Your task to perform on an android device: turn off translation in the chrome app Image 0: 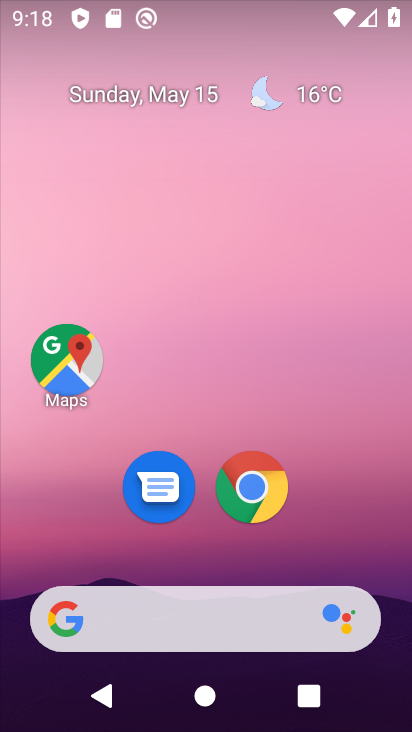
Step 0: click (248, 490)
Your task to perform on an android device: turn off translation in the chrome app Image 1: 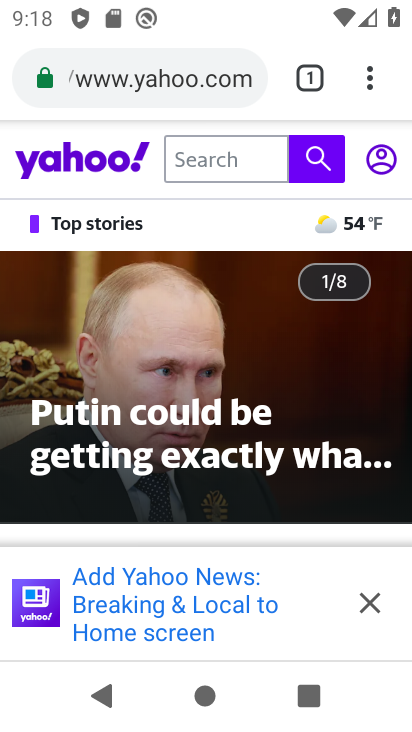
Step 1: click (368, 88)
Your task to perform on an android device: turn off translation in the chrome app Image 2: 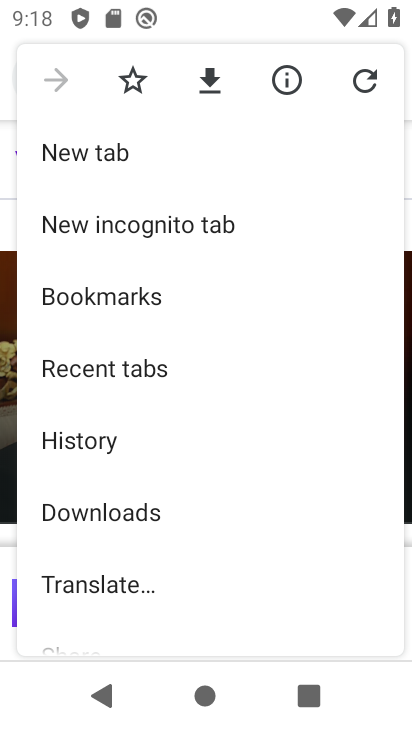
Step 2: drag from (188, 616) to (255, 138)
Your task to perform on an android device: turn off translation in the chrome app Image 3: 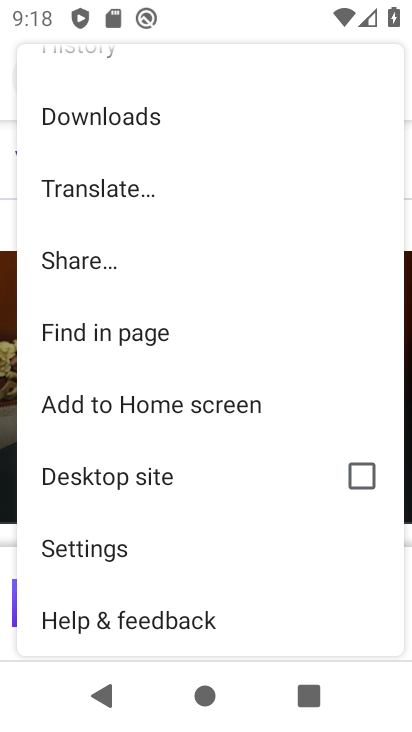
Step 3: drag from (218, 584) to (268, 121)
Your task to perform on an android device: turn off translation in the chrome app Image 4: 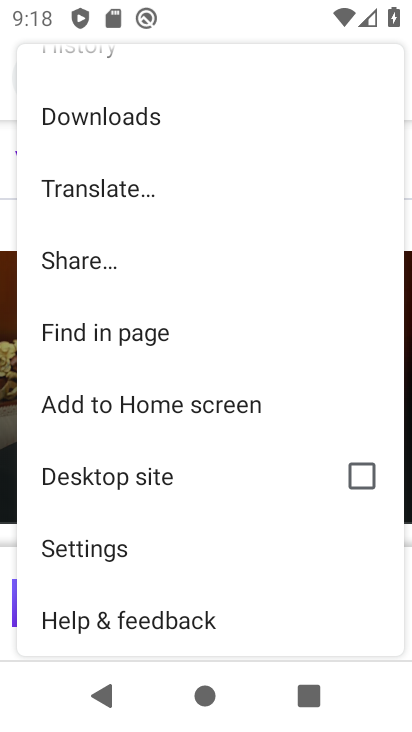
Step 4: click (95, 550)
Your task to perform on an android device: turn off translation in the chrome app Image 5: 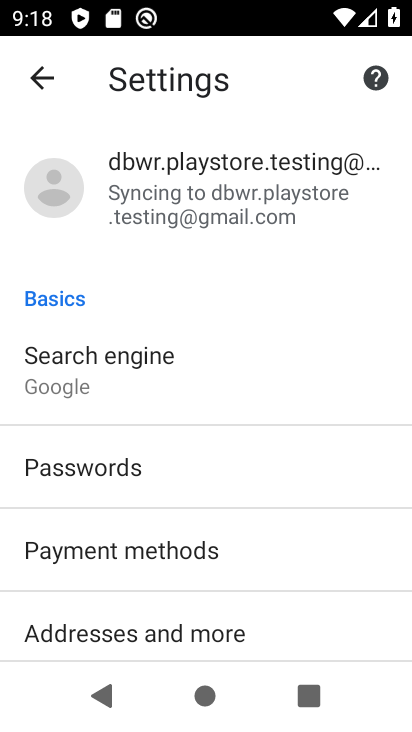
Step 5: drag from (290, 621) to (265, 23)
Your task to perform on an android device: turn off translation in the chrome app Image 6: 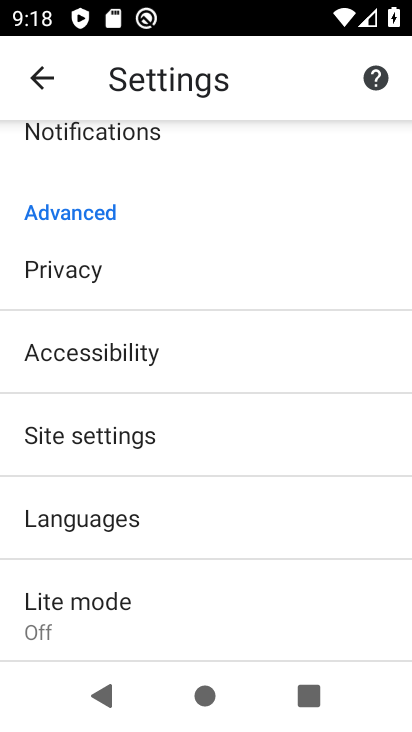
Step 6: click (98, 523)
Your task to perform on an android device: turn off translation in the chrome app Image 7: 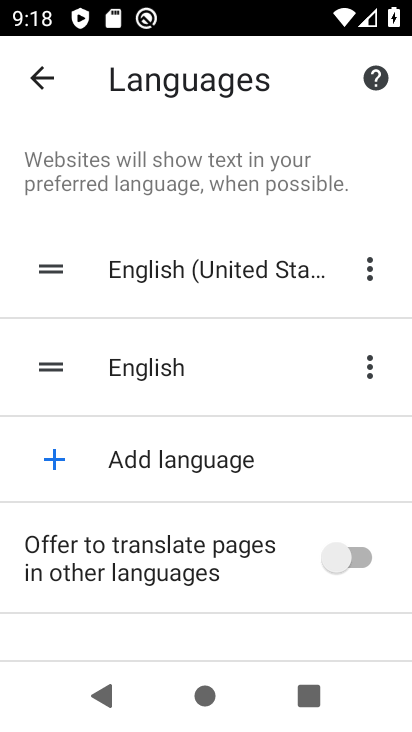
Step 7: task complete